Your task to perform on an android device: Open the web browser Image 0: 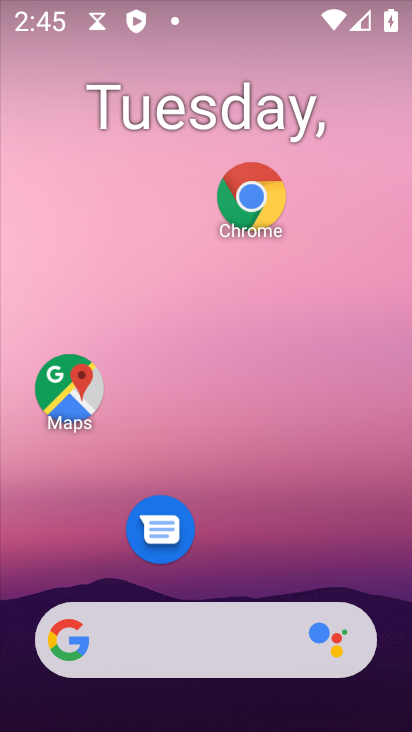
Step 0: click (254, 203)
Your task to perform on an android device: Open the web browser Image 1: 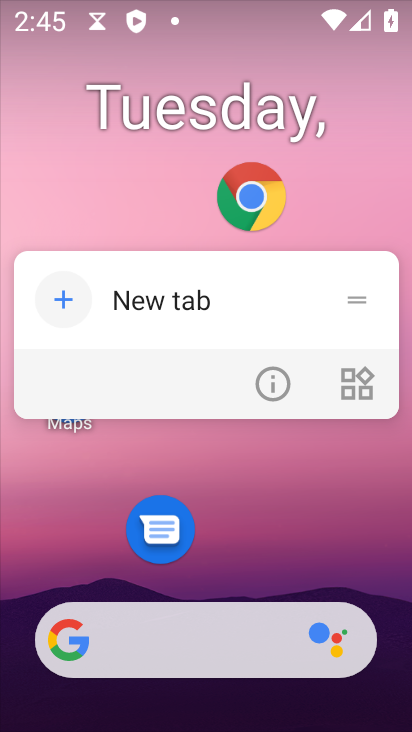
Step 1: click (258, 210)
Your task to perform on an android device: Open the web browser Image 2: 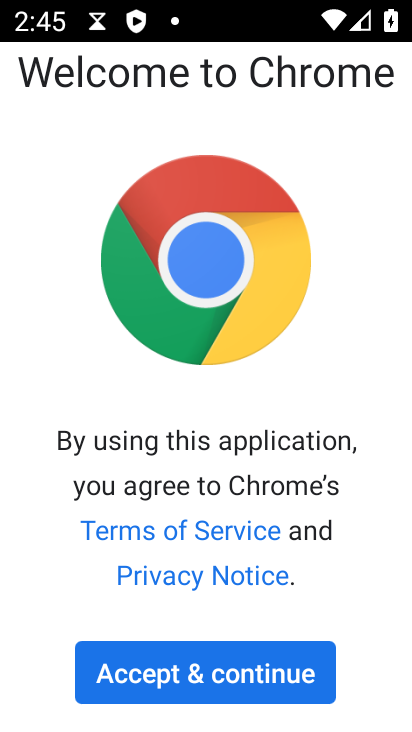
Step 2: click (169, 671)
Your task to perform on an android device: Open the web browser Image 3: 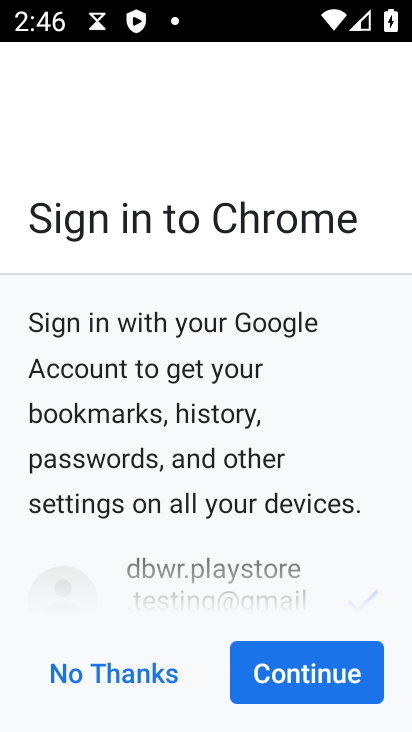
Step 3: click (292, 683)
Your task to perform on an android device: Open the web browser Image 4: 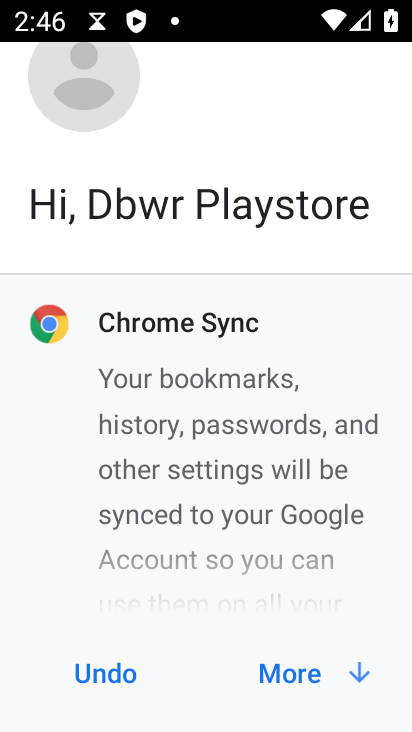
Step 4: click (291, 680)
Your task to perform on an android device: Open the web browser Image 5: 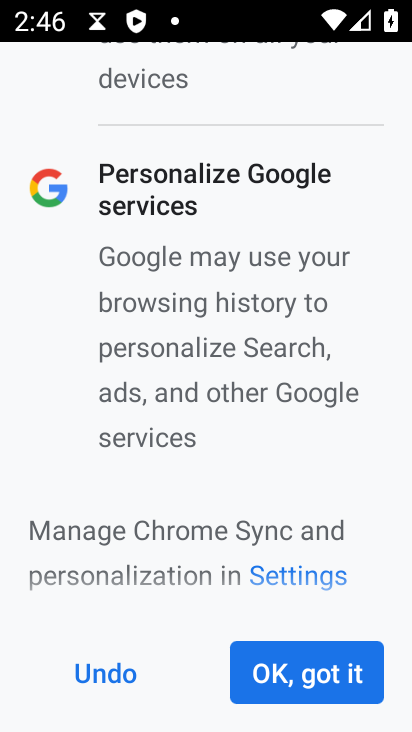
Step 5: click (305, 672)
Your task to perform on an android device: Open the web browser Image 6: 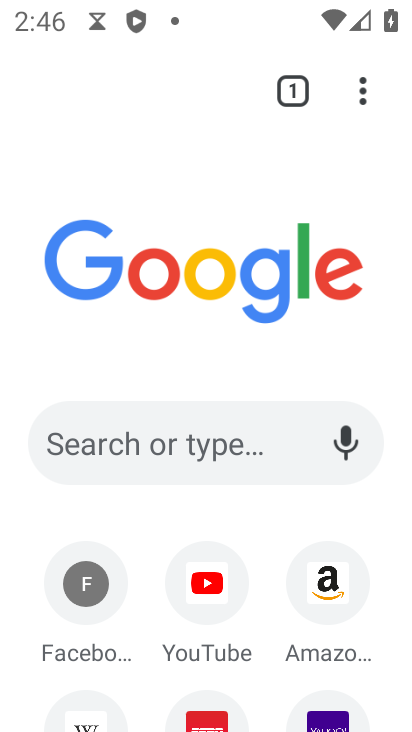
Step 6: task complete